Your task to perform on an android device: Open Google Maps and go to "Timeline" Image 0: 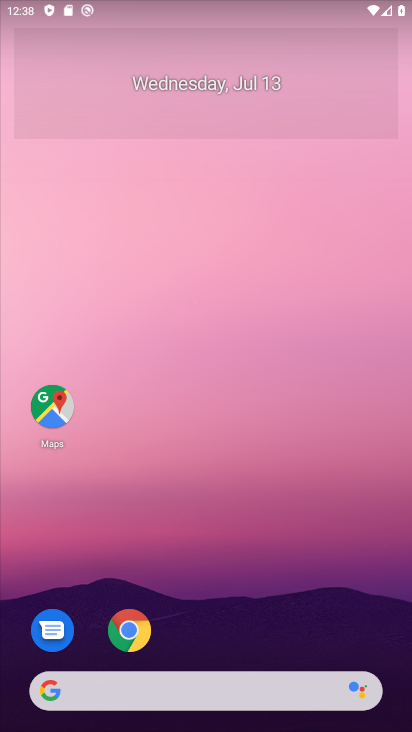
Step 0: click (53, 403)
Your task to perform on an android device: Open Google Maps and go to "Timeline" Image 1: 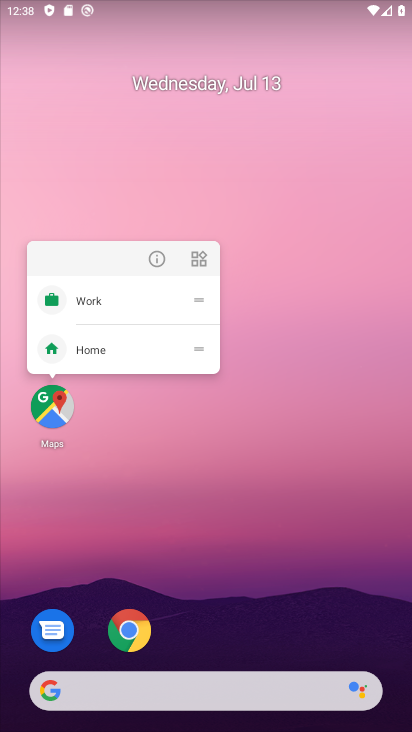
Step 1: click (56, 410)
Your task to perform on an android device: Open Google Maps and go to "Timeline" Image 2: 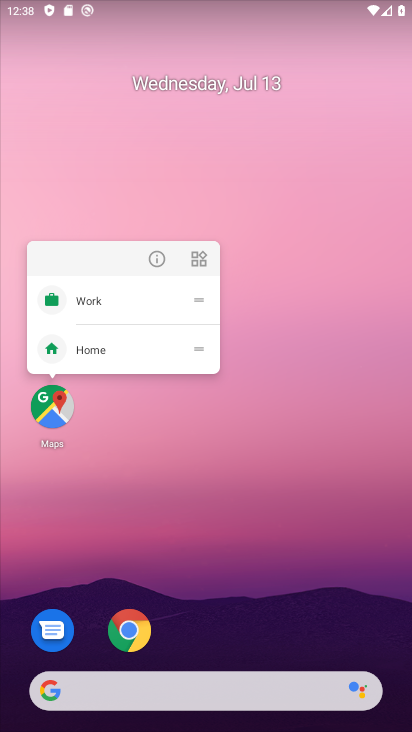
Step 2: click (49, 418)
Your task to perform on an android device: Open Google Maps and go to "Timeline" Image 3: 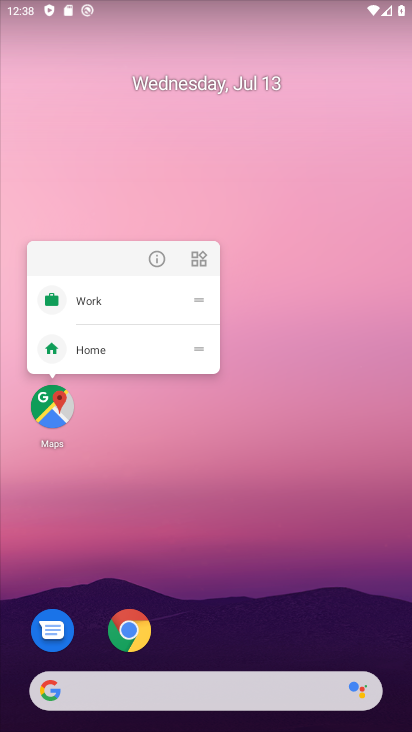
Step 3: click (57, 429)
Your task to perform on an android device: Open Google Maps and go to "Timeline" Image 4: 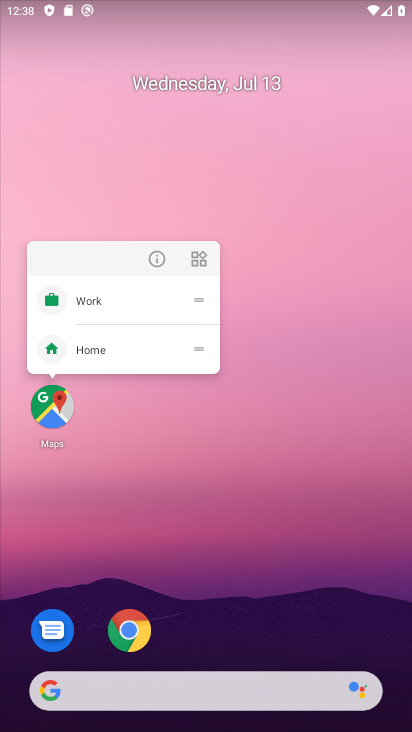
Step 4: click (57, 416)
Your task to perform on an android device: Open Google Maps and go to "Timeline" Image 5: 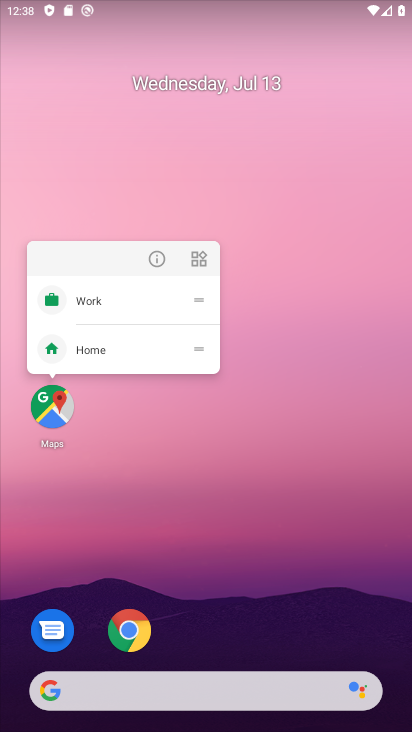
Step 5: click (57, 412)
Your task to perform on an android device: Open Google Maps and go to "Timeline" Image 6: 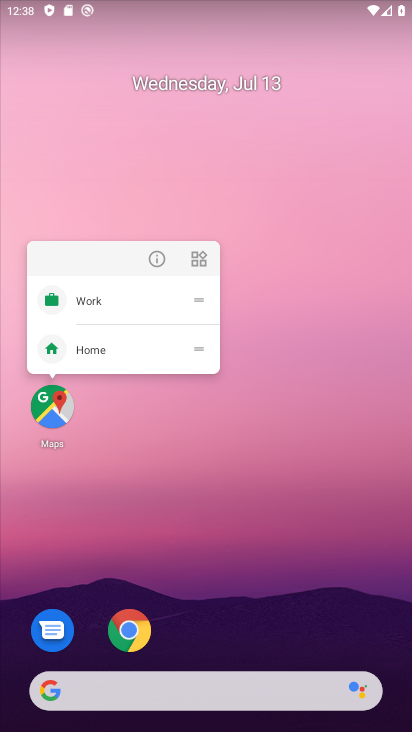
Step 6: click (53, 390)
Your task to perform on an android device: Open Google Maps and go to "Timeline" Image 7: 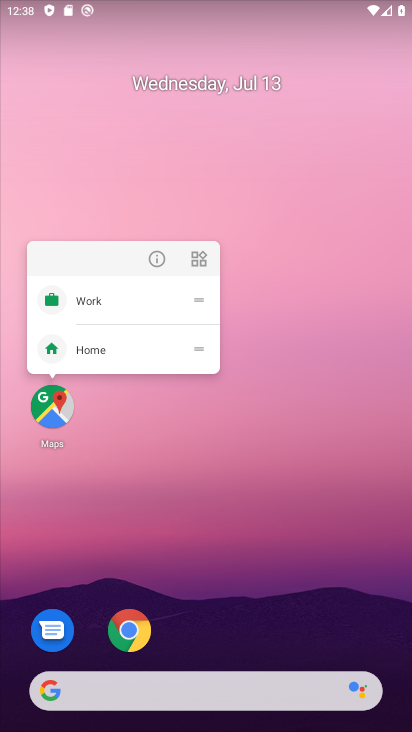
Step 7: click (58, 412)
Your task to perform on an android device: Open Google Maps and go to "Timeline" Image 8: 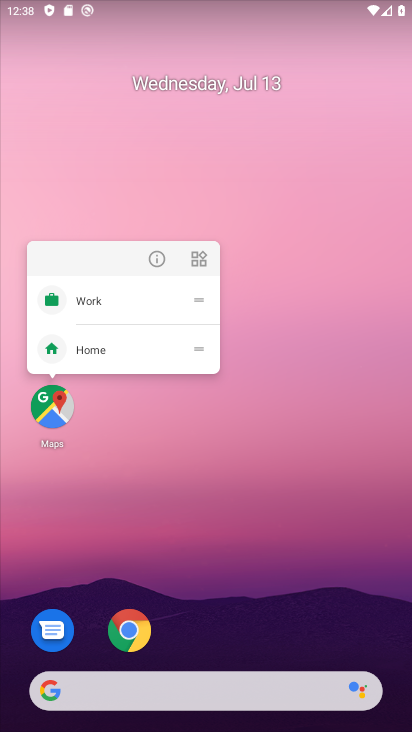
Step 8: task complete